Your task to perform on an android device: Open Google Maps and go to "Timeline" Image 0: 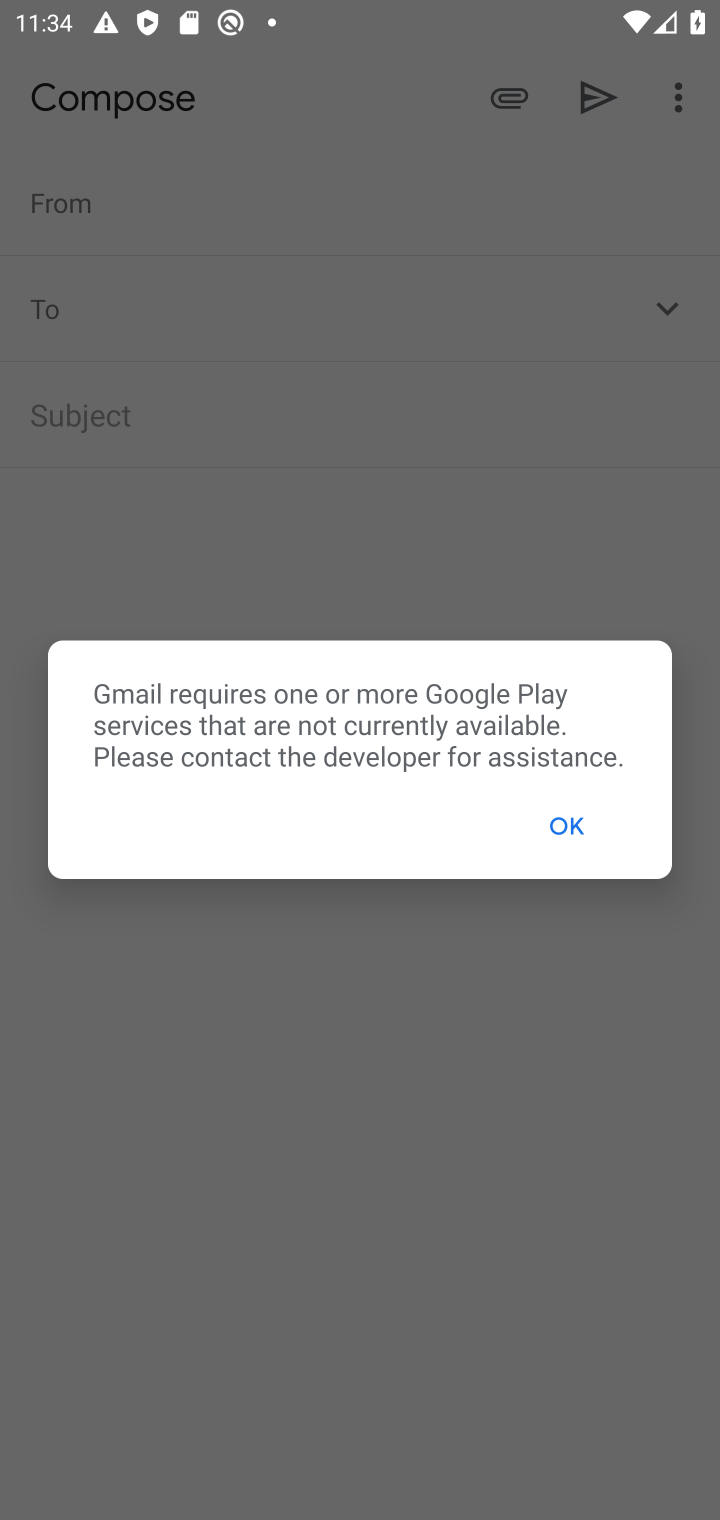
Step 0: press home button
Your task to perform on an android device: Open Google Maps and go to "Timeline" Image 1: 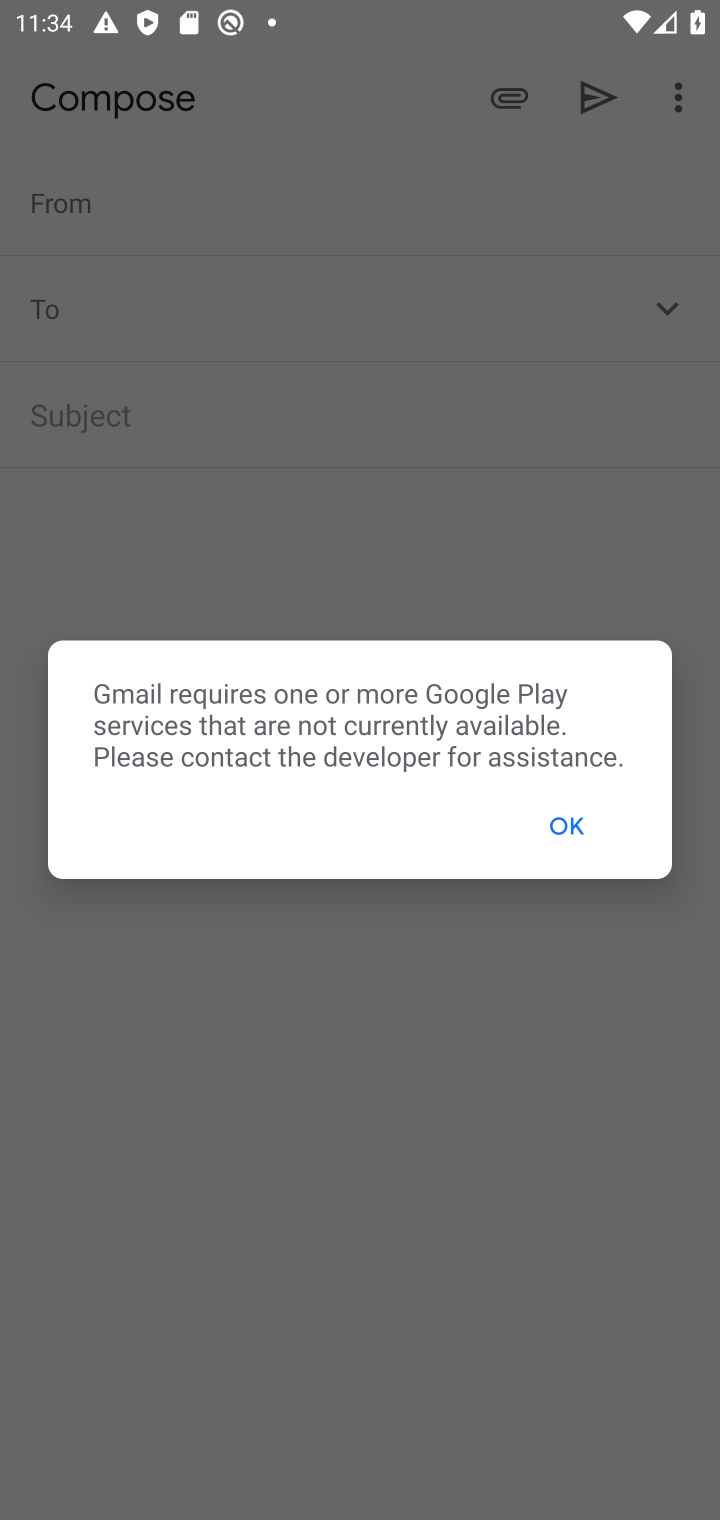
Step 1: click (106, 405)
Your task to perform on an android device: Open Google Maps and go to "Timeline" Image 2: 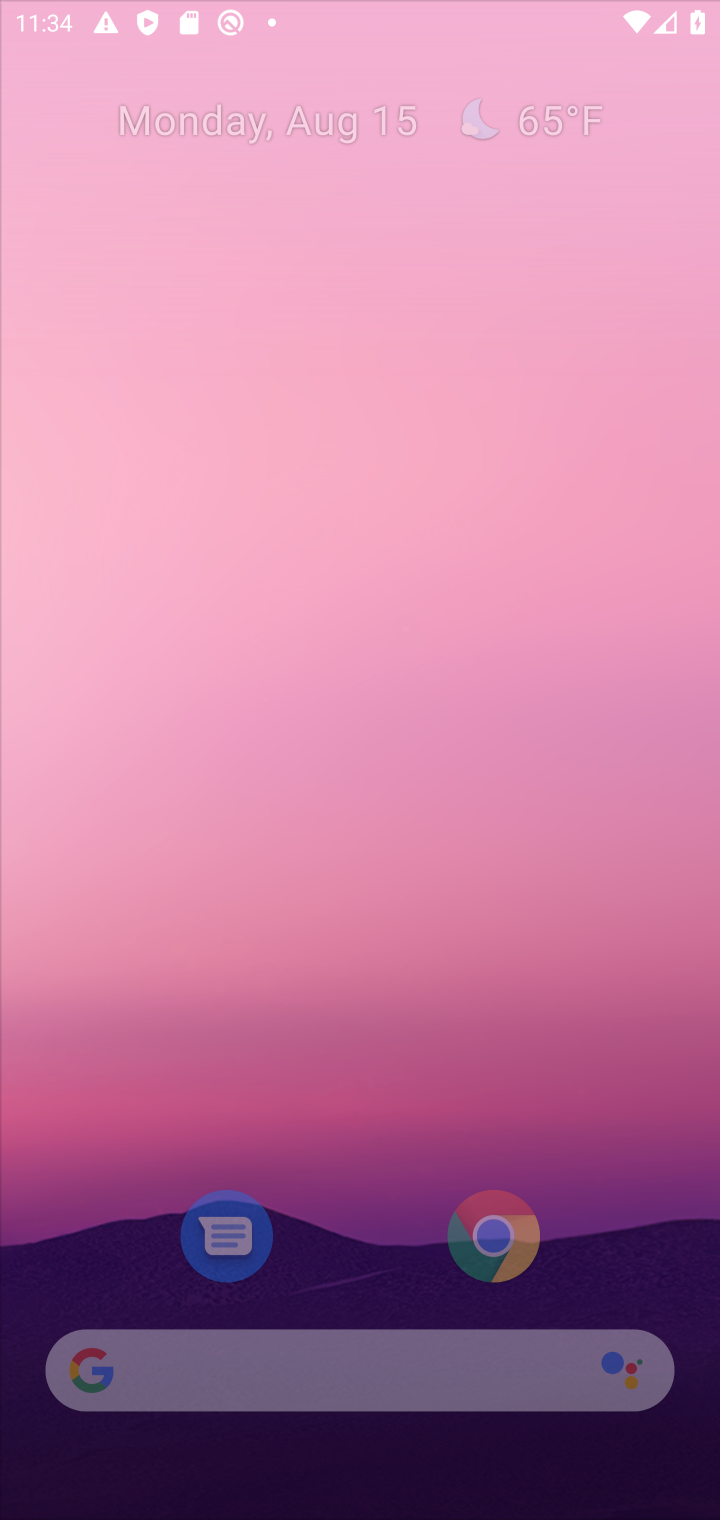
Step 2: press back button
Your task to perform on an android device: Open Google Maps and go to "Timeline" Image 3: 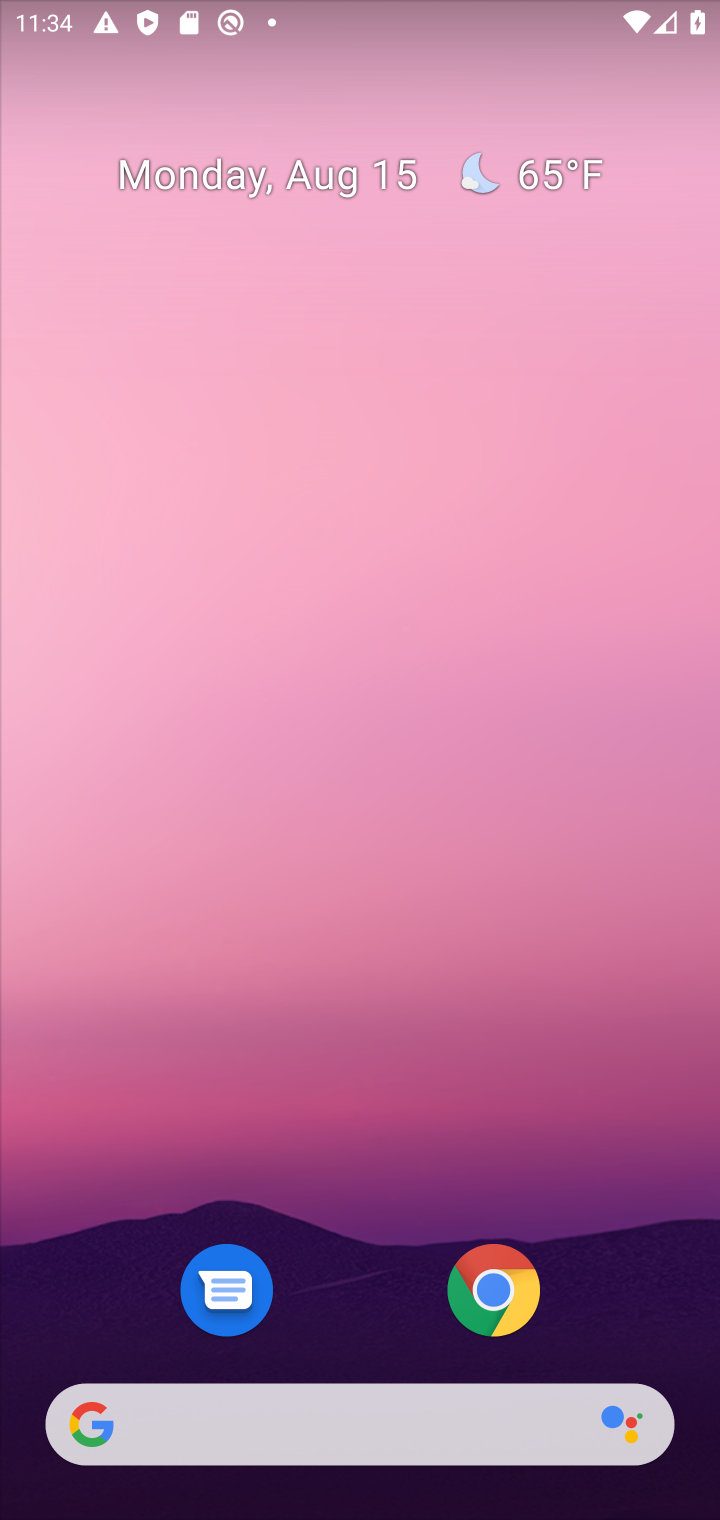
Step 3: press home button
Your task to perform on an android device: Open Google Maps and go to "Timeline" Image 4: 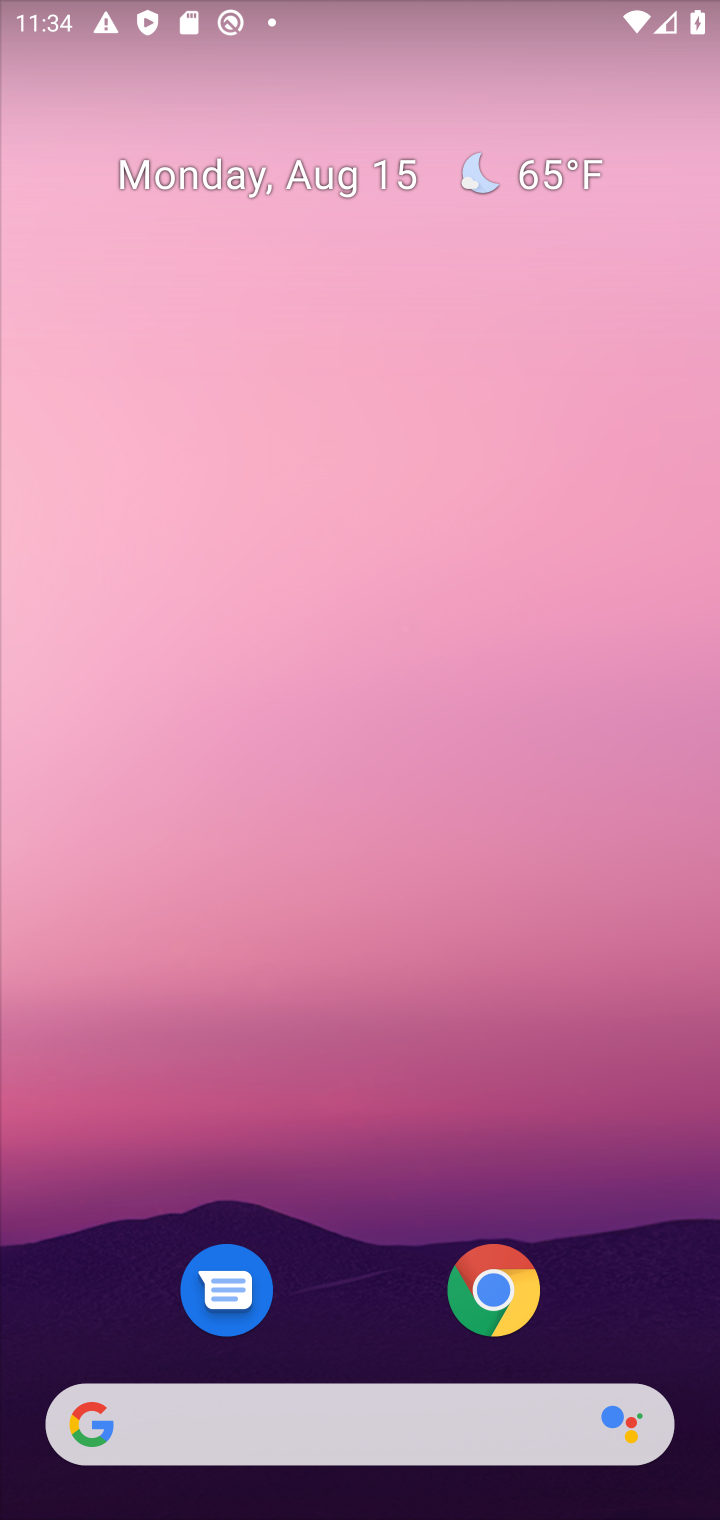
Step 4: drag from (271, 826) to (573, 77)
Your task to perform on an android device: Open Google Maps and go to "Timeline" Image 5: 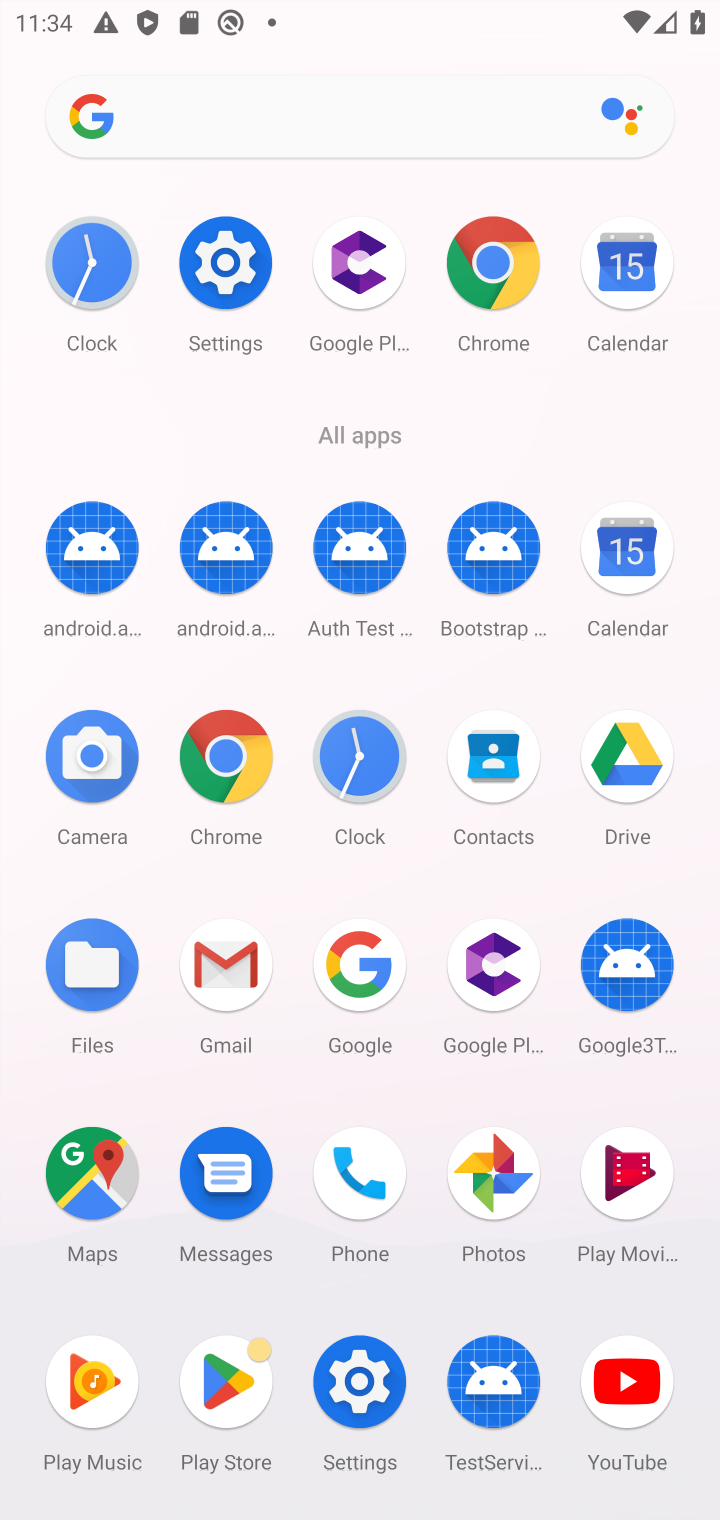
Step 5: click (64, 1199)
Your task to perform on an android device: Open Google Maps and go to "Timeline" Image 6: 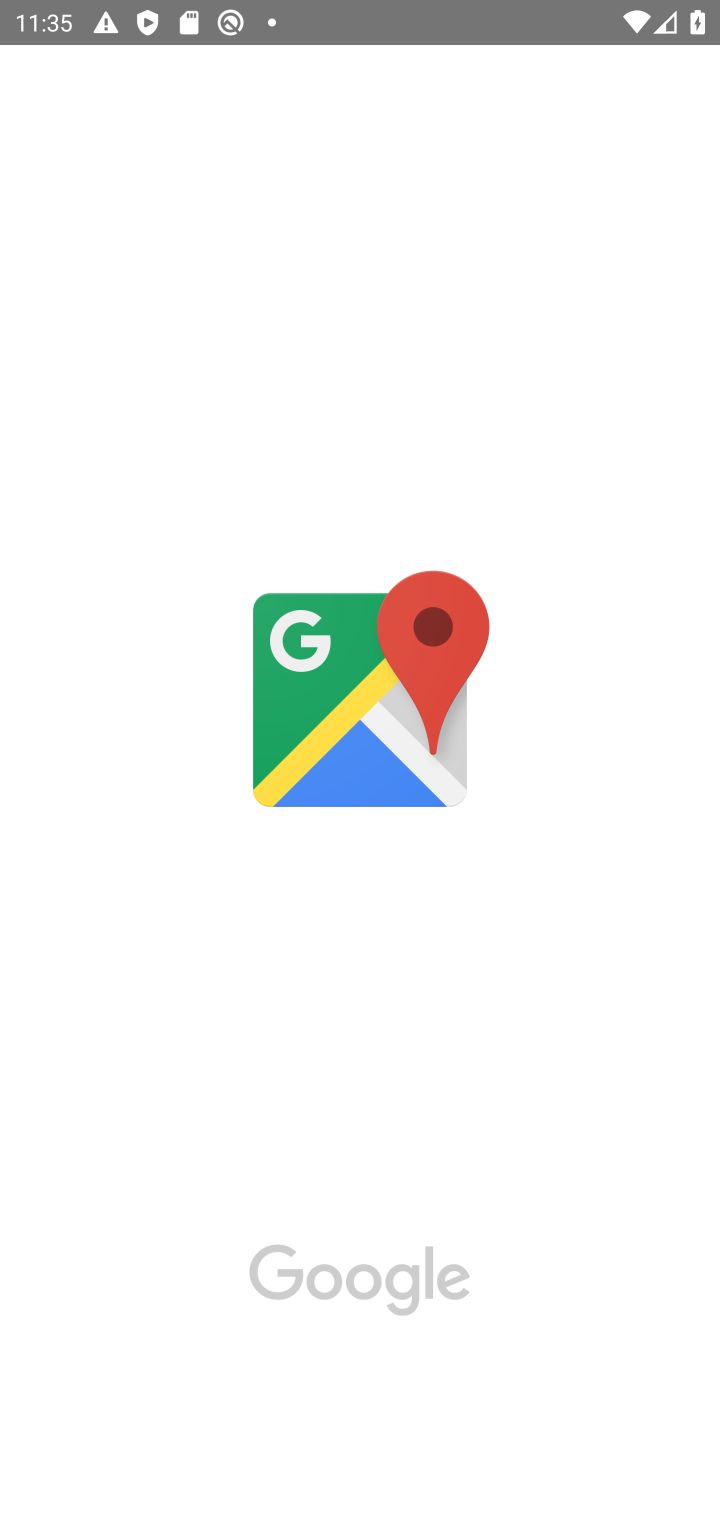
Step 6: task complete